Your task to perform on an android device: change the clock display to digital Image 0: 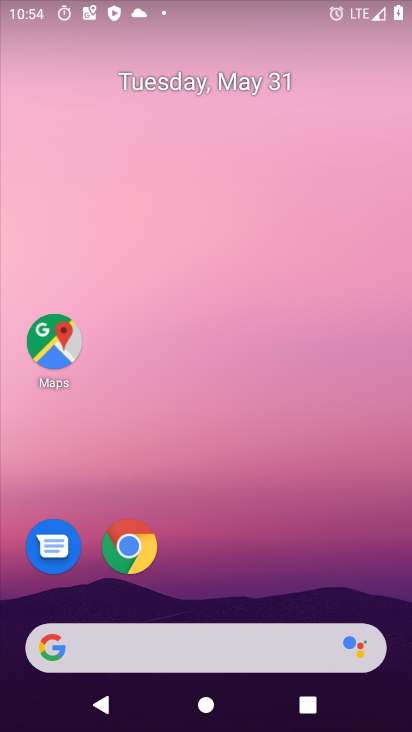
Step 0: drag from (214, 550) to (243, 197)
Your task to perform on an android device: change the clock display to digital Image 1: 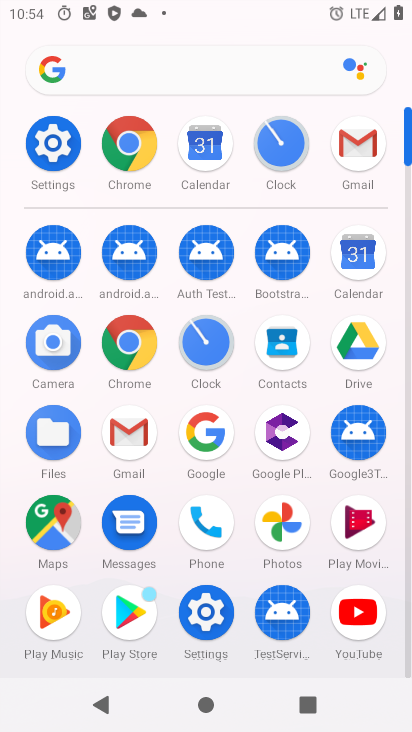
Step 1: click (266, 158)
Your task to perform on an android device: change the clock display to digital Image 2: 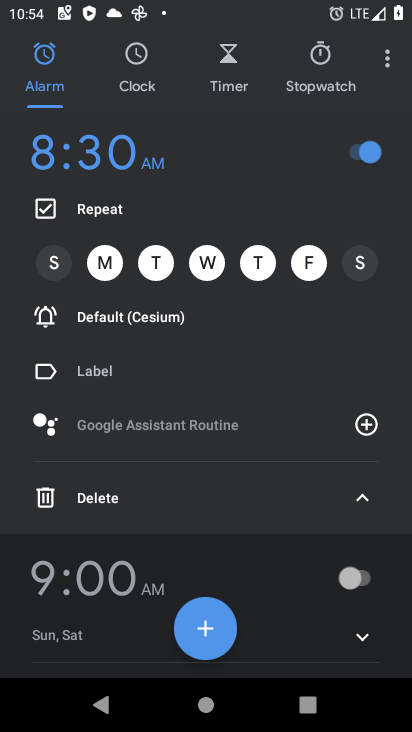
Step 2: click (377, 49)
Your task to perform on an android device: change the clock display to digital Image 3: 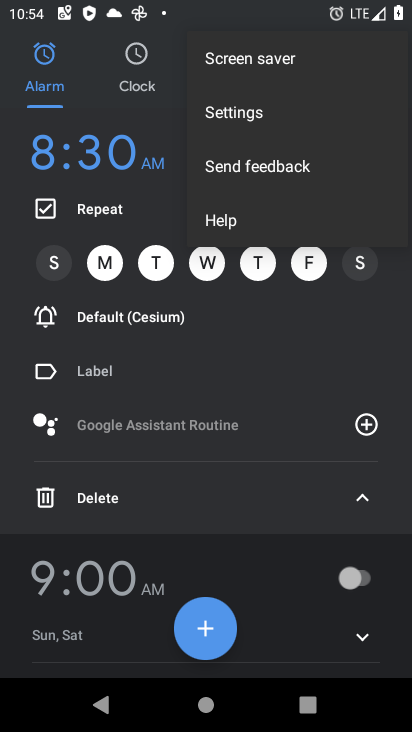
Step 3: click (309, 106)
Your task to perform on an android device: change the clock display to digital Image 4: 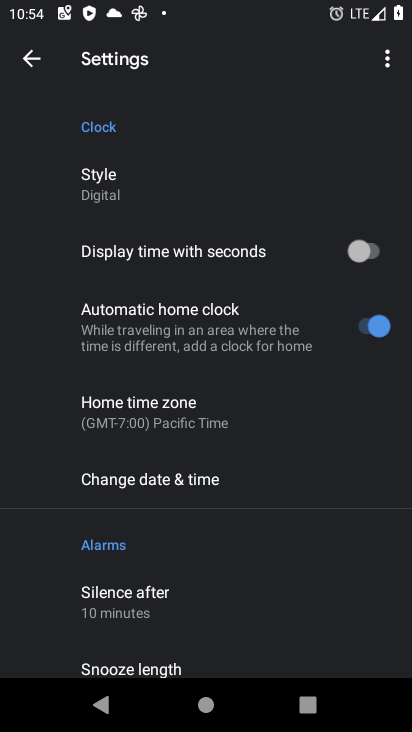
Step 4: task complete